Your task to perform on an android device: change the clock display to digital Image 0: 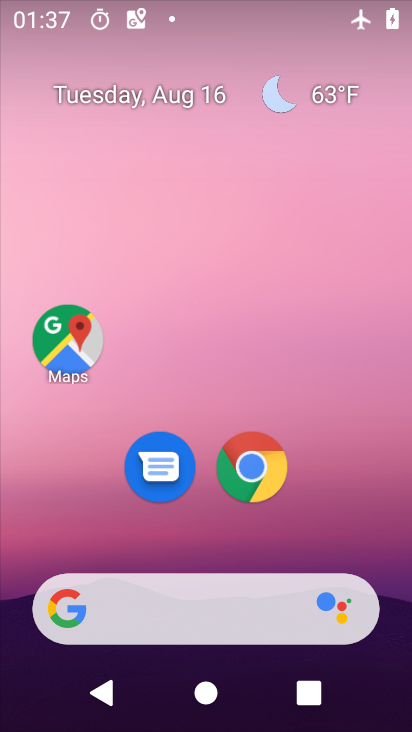
Step 0: press home button
Your task to perform on an android device: change the clock display to digital Image 1: 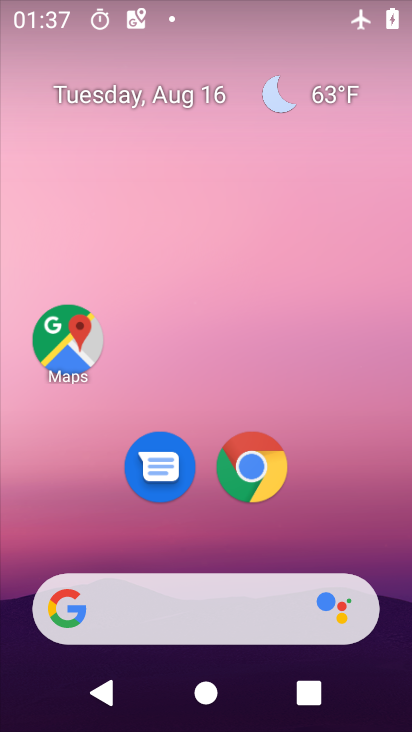
Step 1: drag from (355, 537) to (389, 87)
Your task to perform on an android device: change the clock display to digital Image 2: 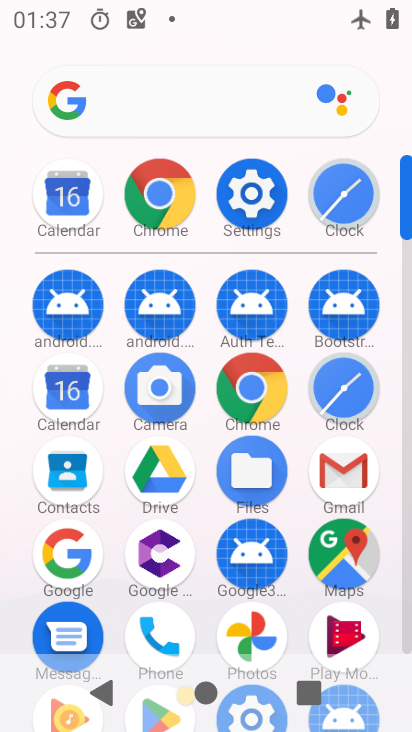
Step 2: click (333, 398)
Your task to perform on an android device: change the clock display to digital Image 3: 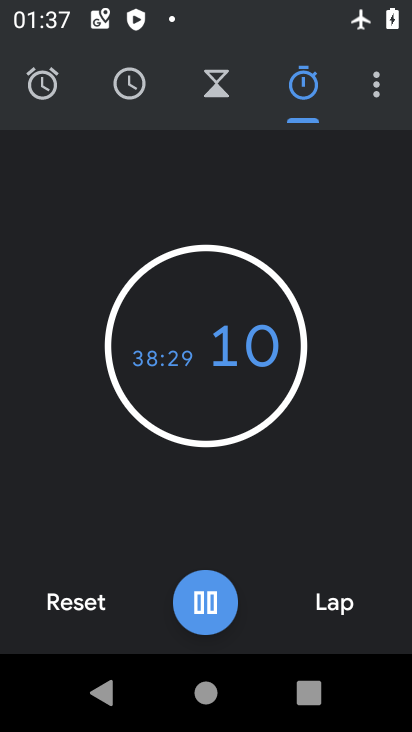
Step 3: click (377, 92)
Your task to perform on an android device: change the clock display to digital Image 4: 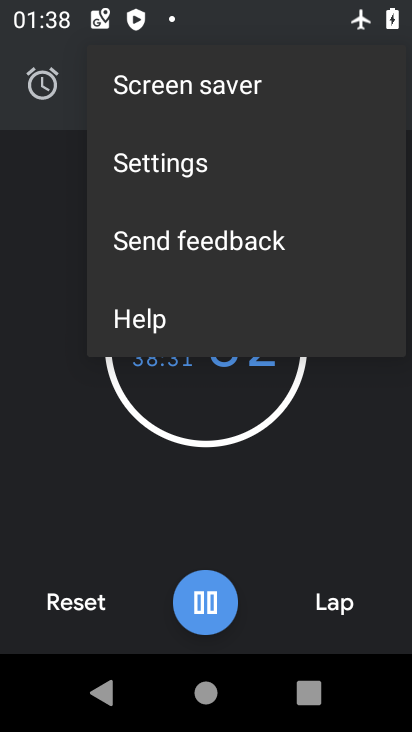
Step 4: click (229, 171)
Your task to perform on an android device: change the clock display to digital Image 5: 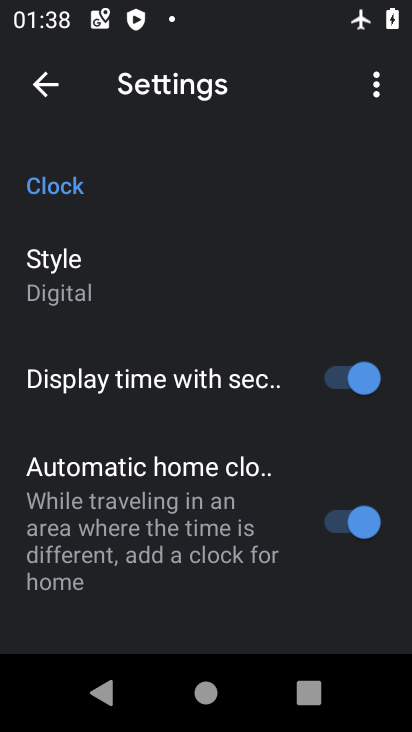
Step 5: task complete